Your task to perform on an android device: Go to Google maps Image 0: 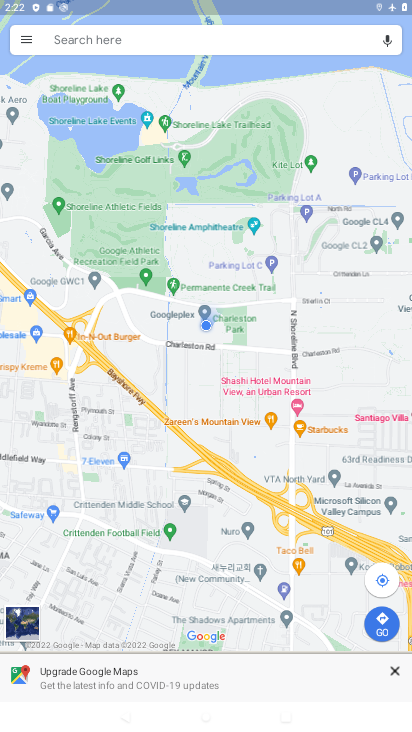
Step 0: task complete